Your task to perform on an android device: move a message to another label in the gmail app Image 0: 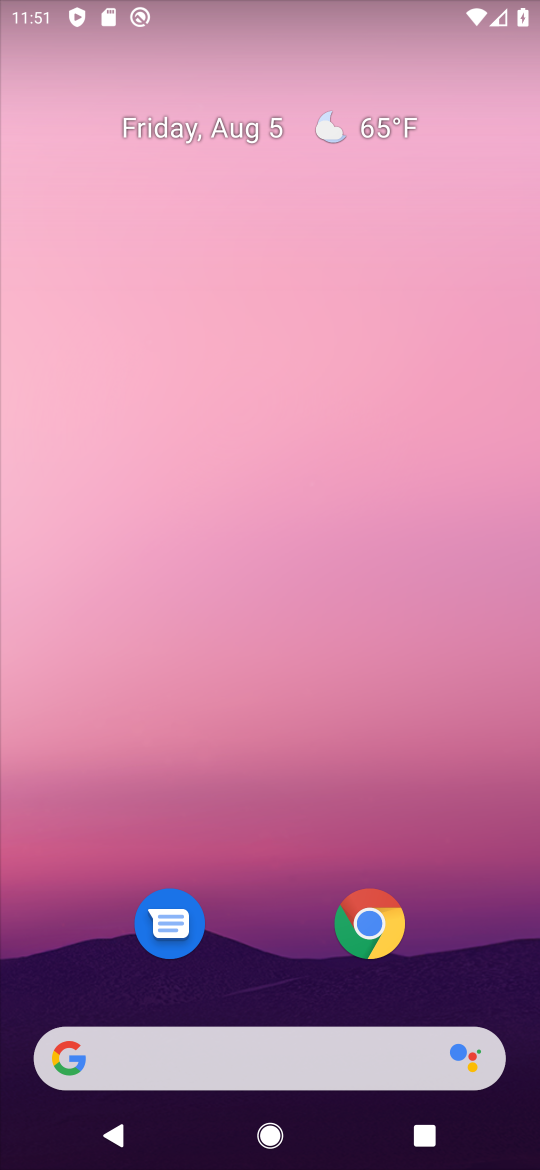
Step 0: drag from (290, 974) to (280, 146)
Your task to perform on an android device: move a message to another label in the gmail app Image 1: 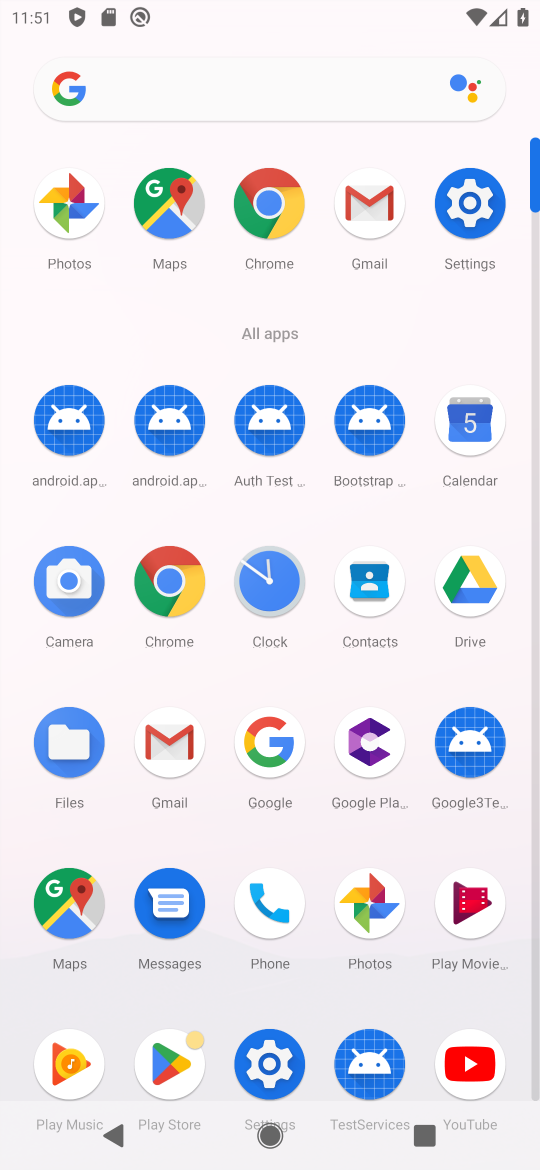
Step 1: click (360, 189)
Your task to perform on an android device: move a message to another label in the gmail app Image 2: 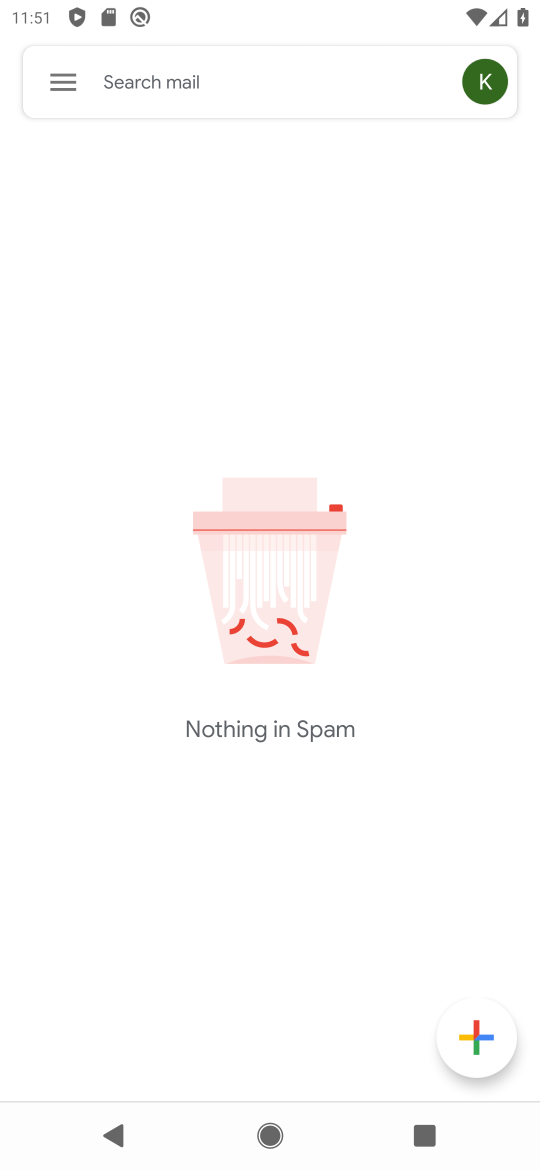
Step 2: click (63, 91)
Your task to perform on an android device: move a message to another label in the gmail app Image 3: 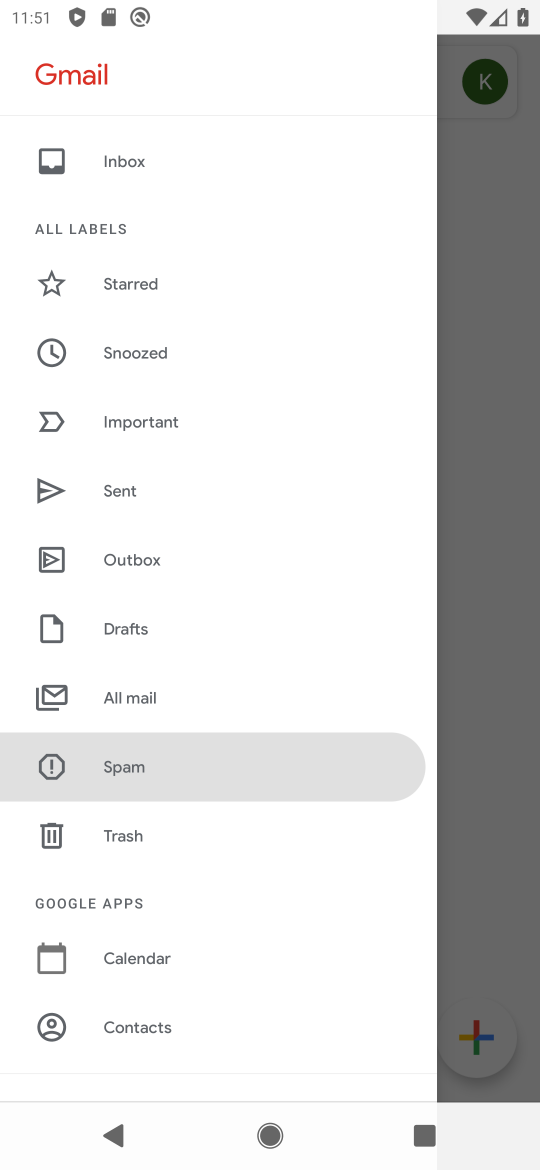
Step 3: click (122, 704)
Your task to perform on an android device: move a message to another label in the gmail app Image 4: 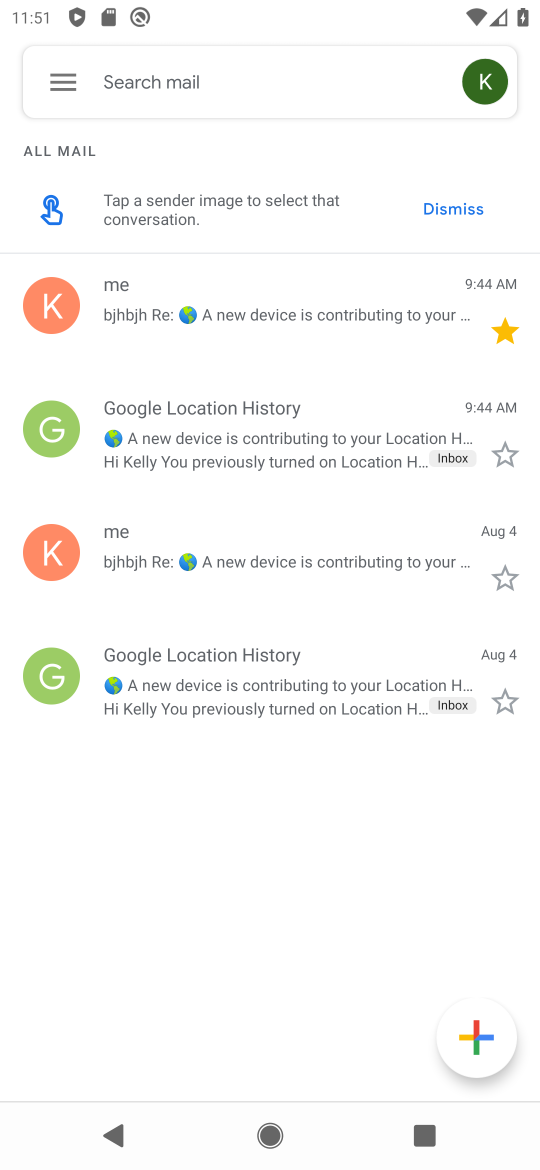
Step 4: click (229, 690)
Your task to perform on an android device: move a message to another label in the gmail app Image 5: 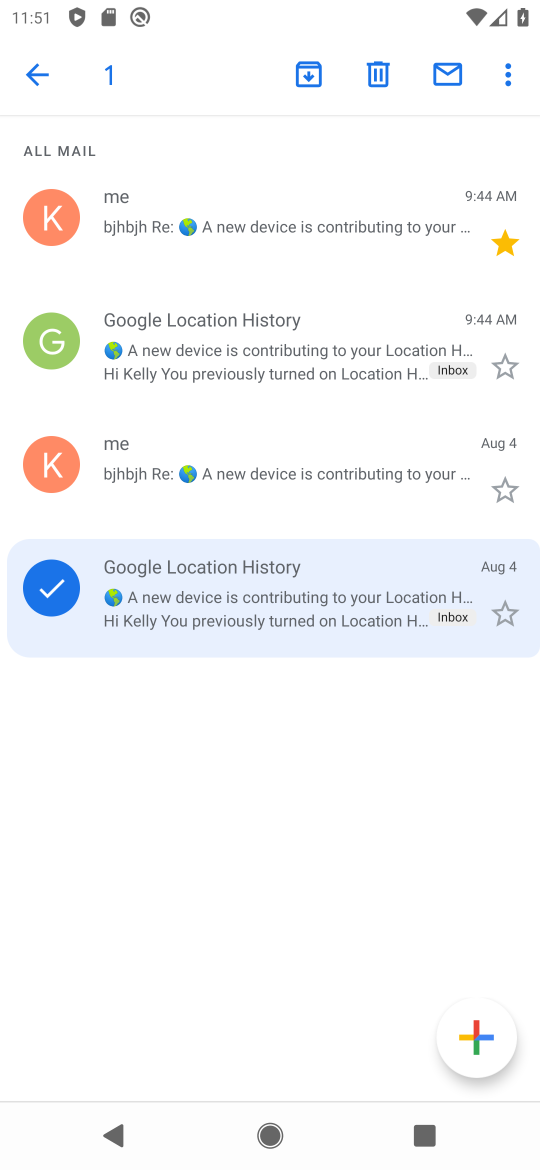
Step 5: click (514, 74)
Your task to perform on an android device: move a message to another label in the gmail app Image 6: 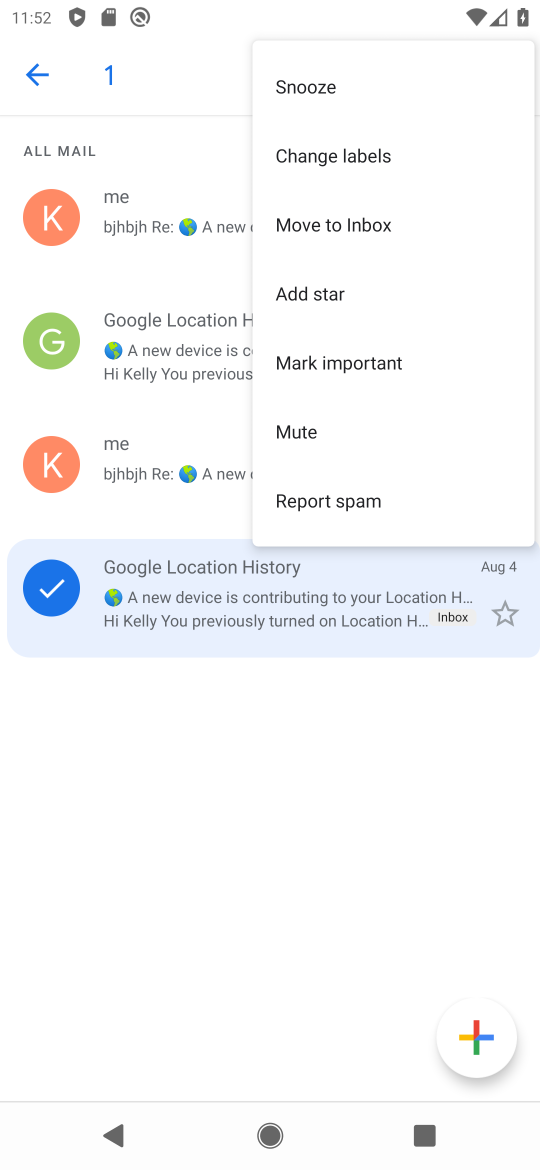
Step 6: click (439, 149)
Your task to perform on an android device: move a message to another label in the gmail app Image 7: 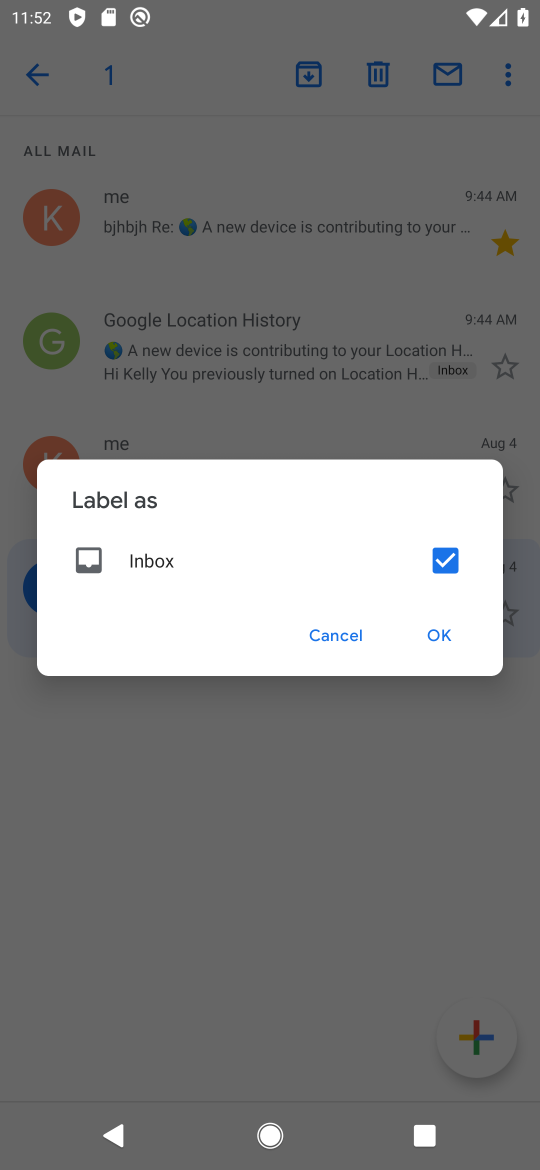
Step 7: click (429, 633)
Your task to perform on an android device: move a message to another label in the gmail app Image 8: 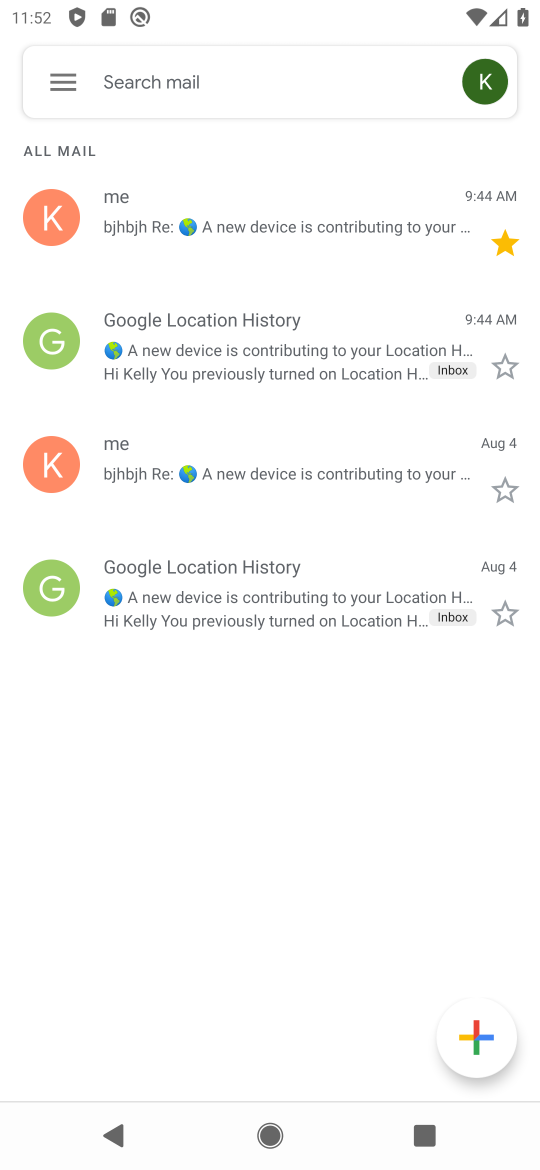
Step 8: task complete